Your task to perform on an android device: Go to Yahoo.com Image 0: 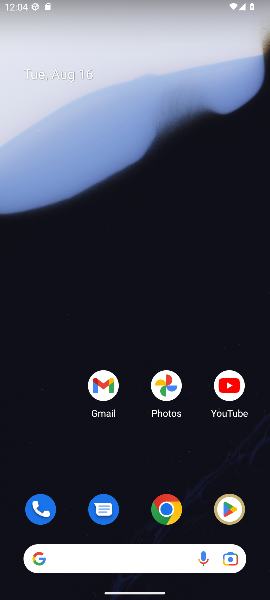
Step 0: press home button
Your task to perform on an android device: Go to Yahoo.com Image 1: 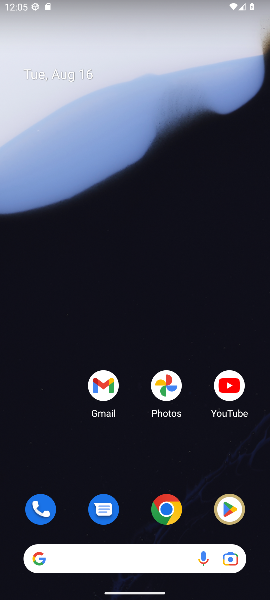
Step 1: drag from (136, 528) to (258, 184)
Your task to perform on an android device: Go to Yahoo.com Image 2: 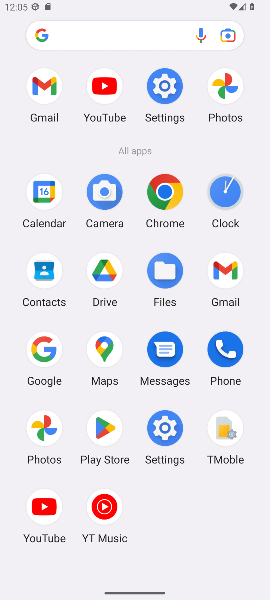
Step 2: click (36, 338)
Your task to perform on an android device: Go to Yahoo.com Image 3: 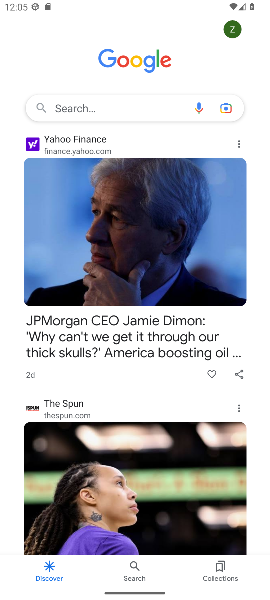
Step 3: type " Yahoo.com"
Your task to perform on an android device: Go to Yahoo.com Image 4: 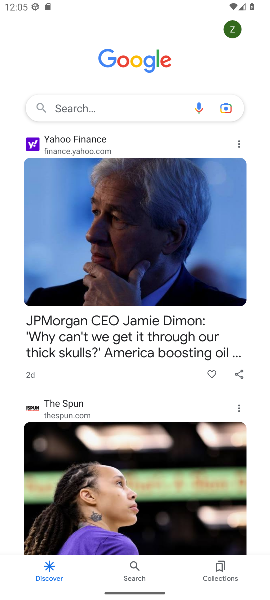
Step 4: click (134, 101)
Your task to perform on an android device: Go to Yahoo.com Image 5: 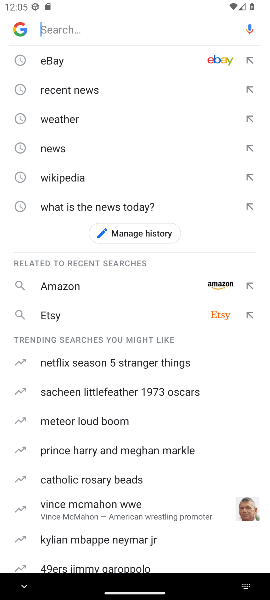
Step 5: type " Yahoo.com"
Your task to perform on an android device: Go to Yahoo.com Image 6: 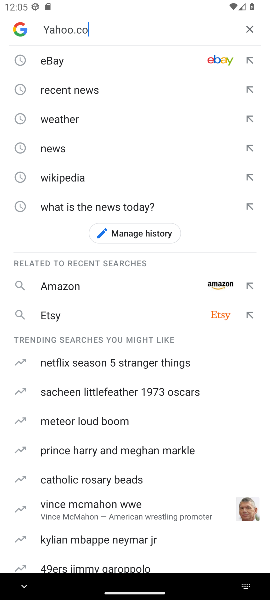
Step 6: press enter
Your task to perform on an android device: Go to Yahoo.com Image 7: 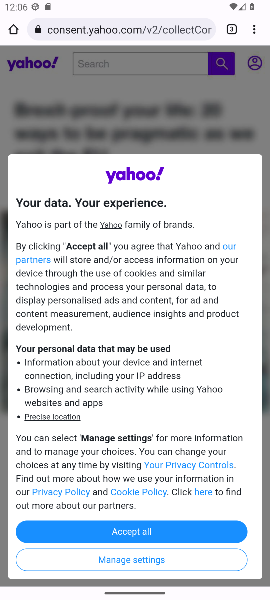
Step 7: click (181, 535)
Your task to perform on an android device: Go to Yahoo.com Image 8: 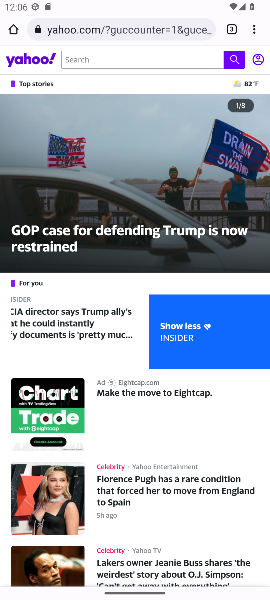
Step 8: task complete